Your task to perform on an android device: Add "usb-c to usb-b" to the cart on bestbuy Image 0: 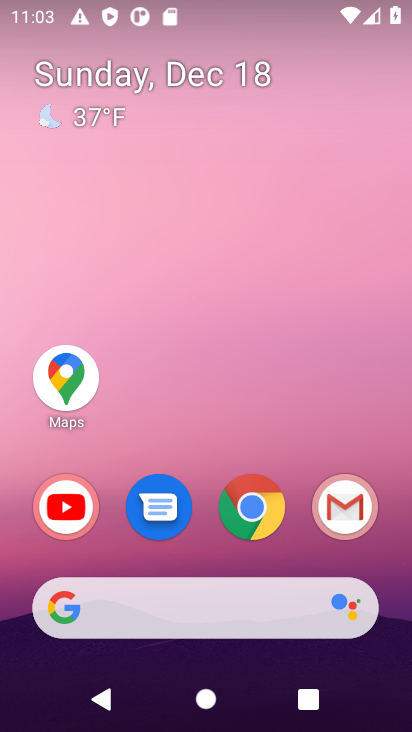
Step 0: click (248, 505)
Your task to perform on an android device: Add "usb-c to usb-b" to the cart on bestbuy Image 1: 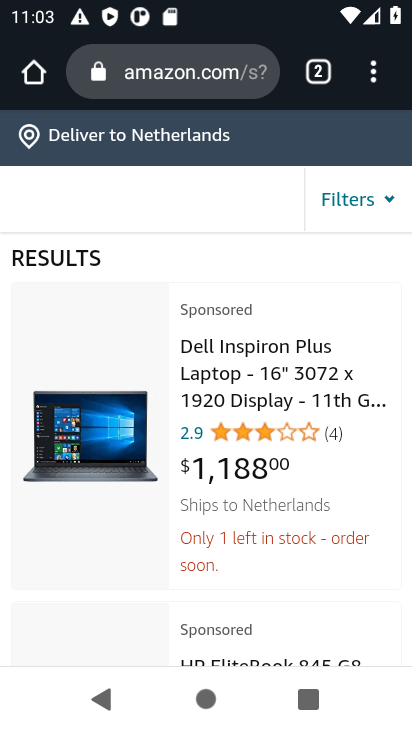
Step 1: click (160, 60)
Your task to perform on an android device: Add "usb-c to usb-b" to the cart on bestbuy Image 2: 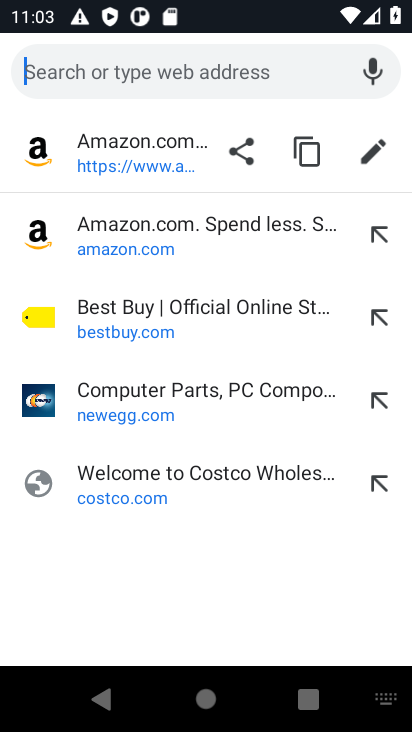
Step 2: click (108, 320)
Your task to perform on an android device: Add "usb-c to usb-b" to the cart on bestbuy Image 3: 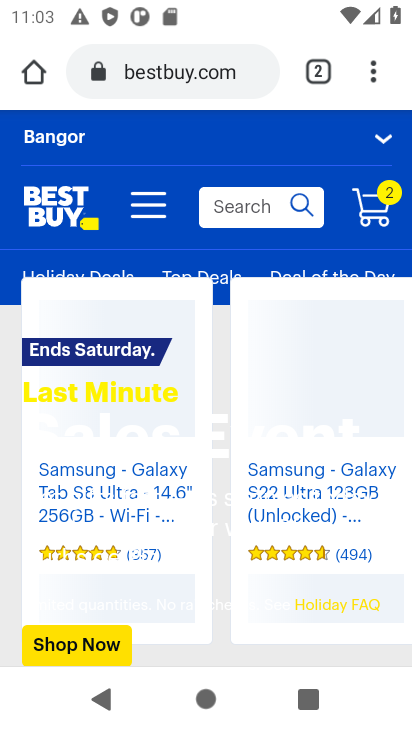
Step 3: click (238, 200)
Your task to perform on an android device: Add "usb-c to usb-b" to the cart on bestbuy Image 4: 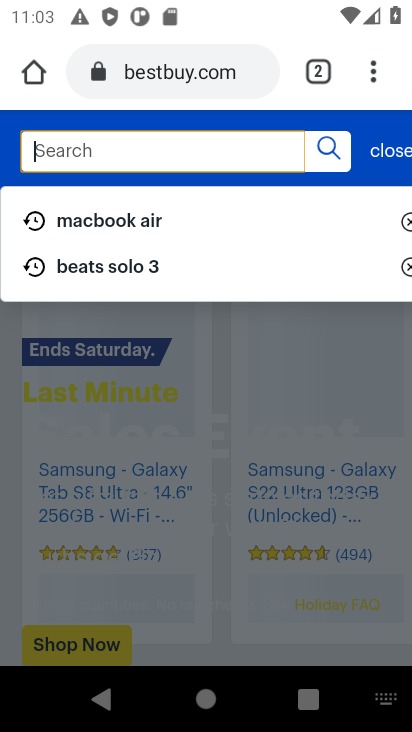
Step 4: type "usb-c to usb-b"
Your task to perform on an android device: Add "usb-c to usb-b" to the cart on bestbuy Image 5: 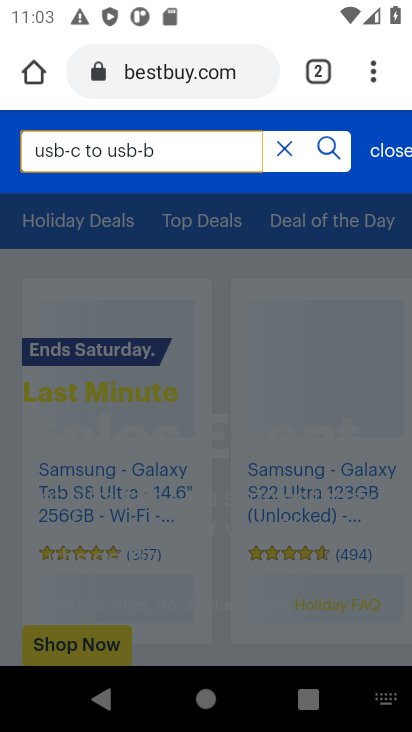
Step 5: click (326, 152)
Your task to perform on an android device: Add "usb-c to usb-b" to the cart on bestbuy Image 6: 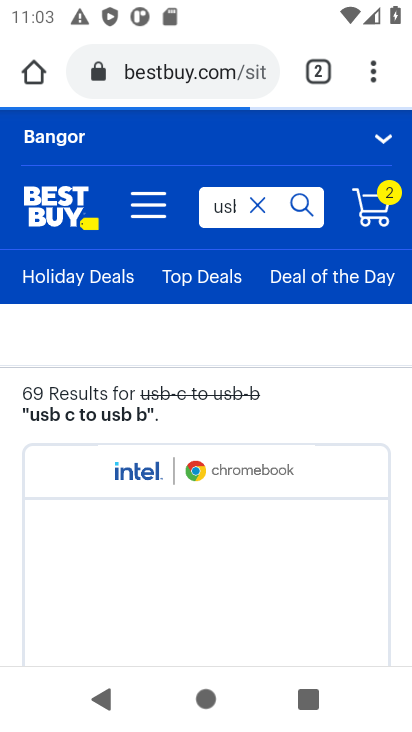
Step 6: task complete